Your task to perform on an android device: Open maps Image 0: 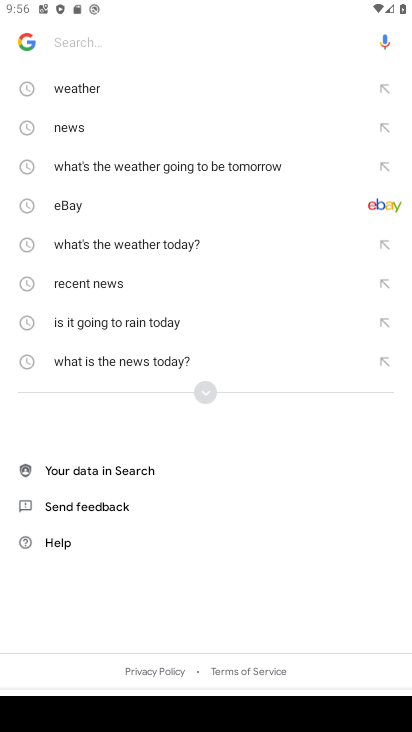
Step 0: press back button
Your task to perform on an android device: Open maps Image 1: 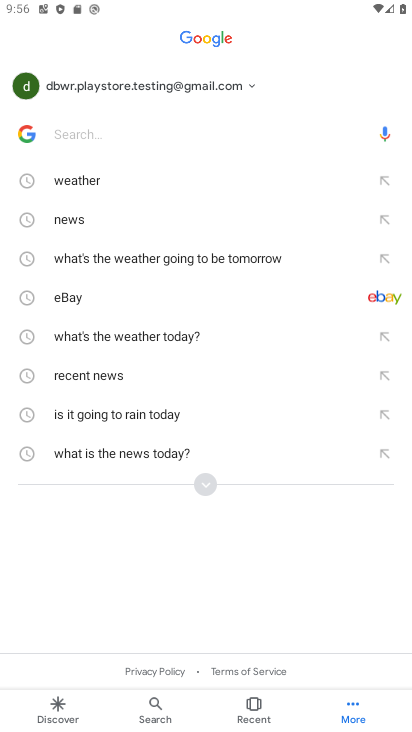
Step 1: press home button
Your task to perform on an android device: Open maps Image 2: 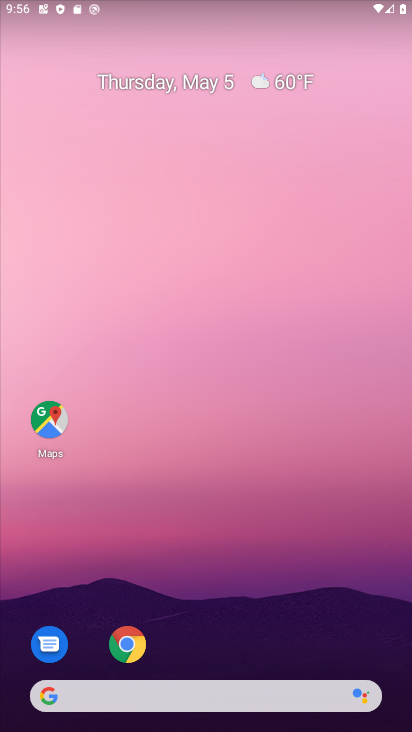
Step 2: click (49, 414)
Your task to perform on an android device: Open maps Image 3: 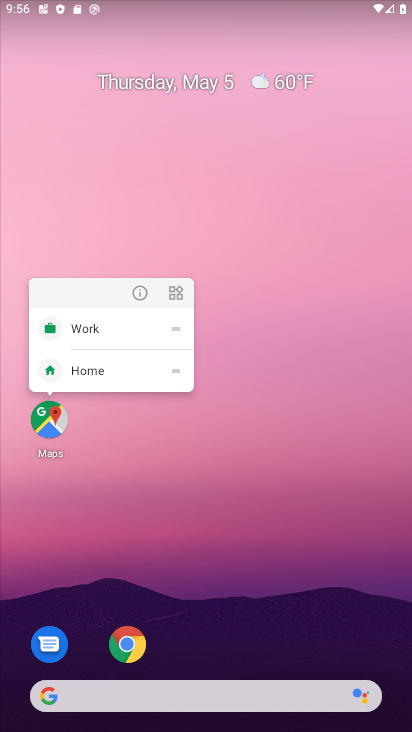
Step 3: click (59, 417)
Your task to perform on an android device: Open maps Image 4: 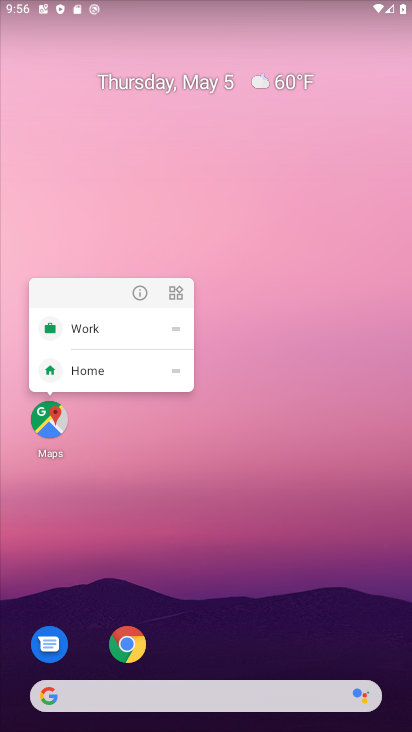
Step 4: click (53, 427)
Your task to perform on an android device: Open maps Image 5: 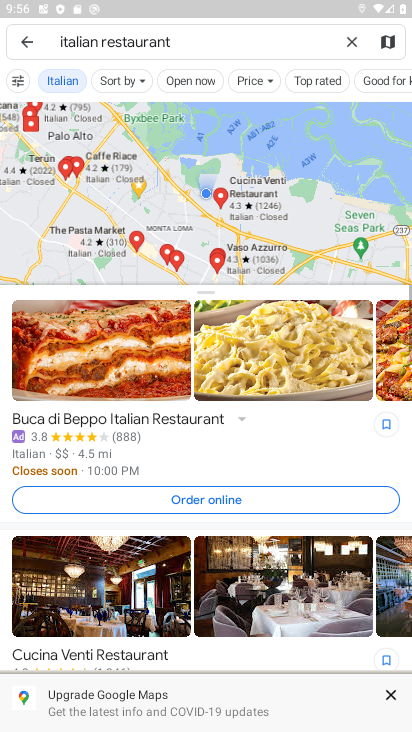
Step 5: task complete